Your task to perform on an android device: Open the stopwatch Image 0: 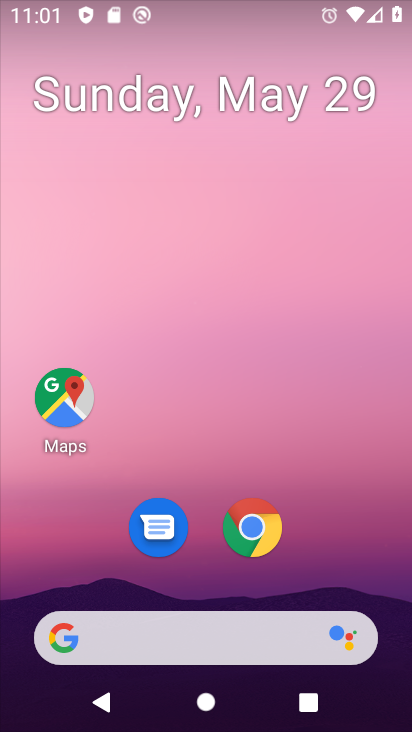
Step 0: drag from (207, 574) to (347, 25)
Your task to perform on an android device: Open the stopwatch Image 1: 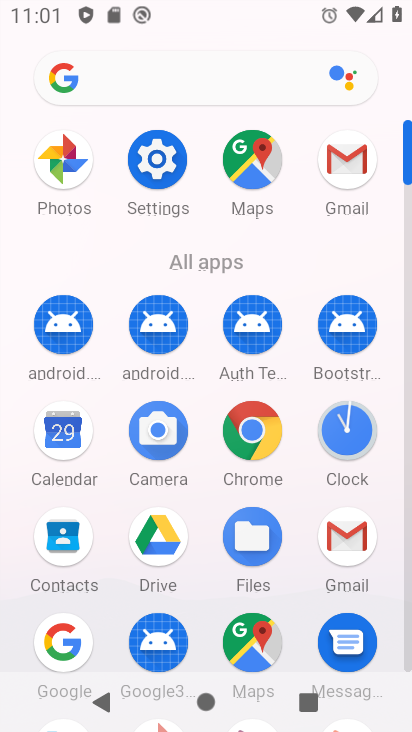
Step 1: drag from (196, 593) to (214, 114)
Your task to perform on an android device: Open the stopwatch Image 2: 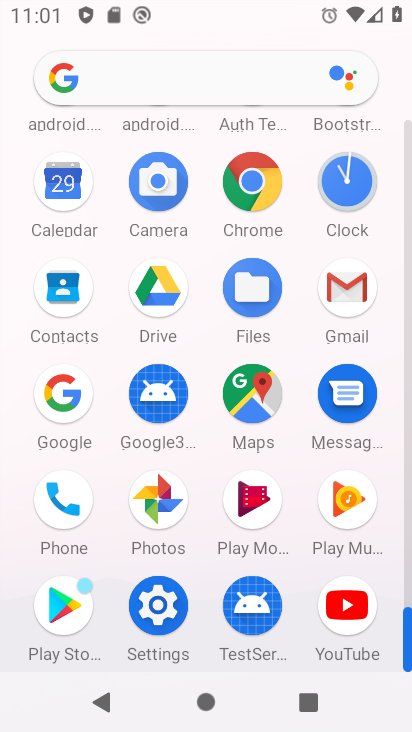
Step 2: click (352, 181)
Your task to perform on an android device: Open the stopwatch Image 3: 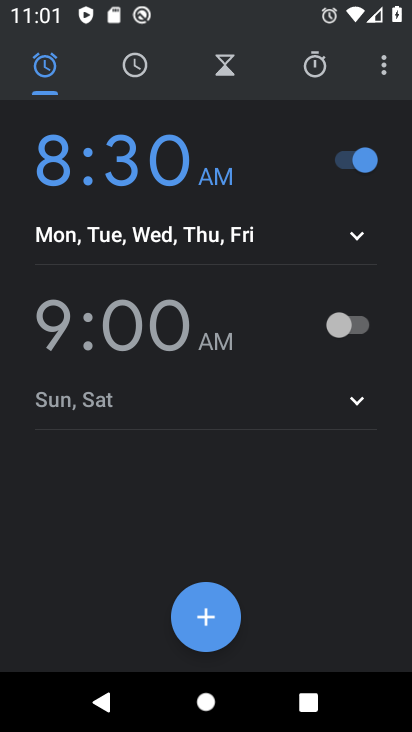
Step 3: click (310, 78)
Your task to perform on an android device: Open the stopwatch Image 4: 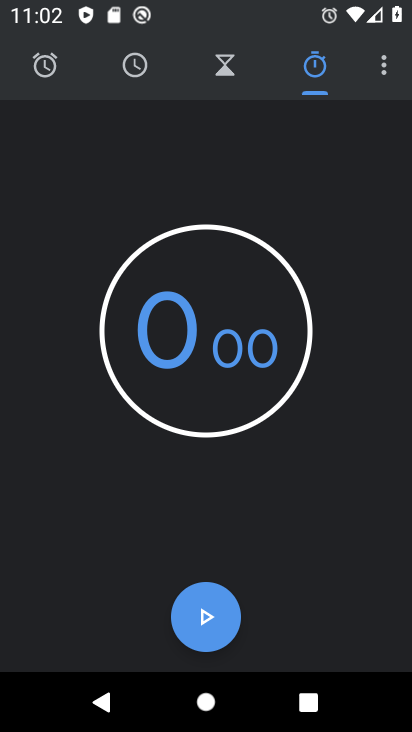
Step 4: task complete